Your task to perform on an android device: Go to ESPN.com Image 0: 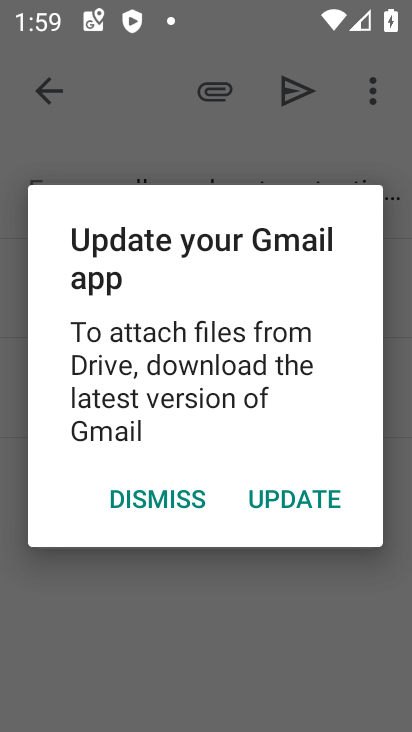
Step 0: press home button
Your task to perform on an android device: Go to ESPN.com Image 1: 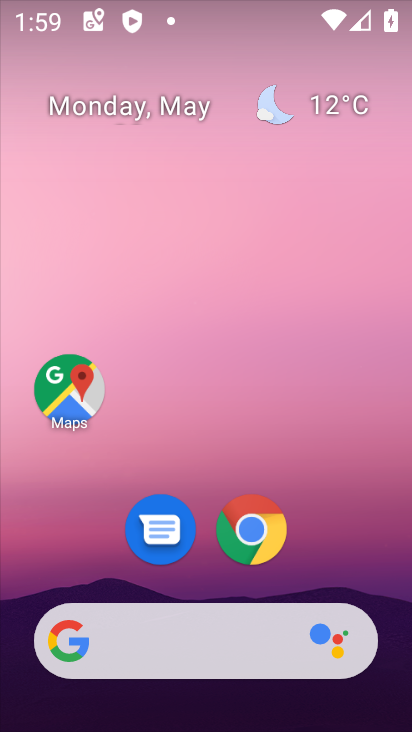
Step 1: click (244, 530)
Your task to perform on an android device: Go to ESPN.com Image 2: 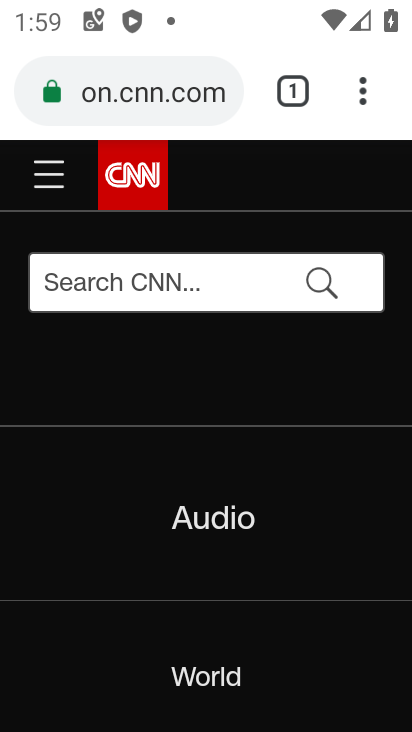
Step 2: click (224, 93)
Your task to perform on an android device: Go to ESPN.com Image 3: 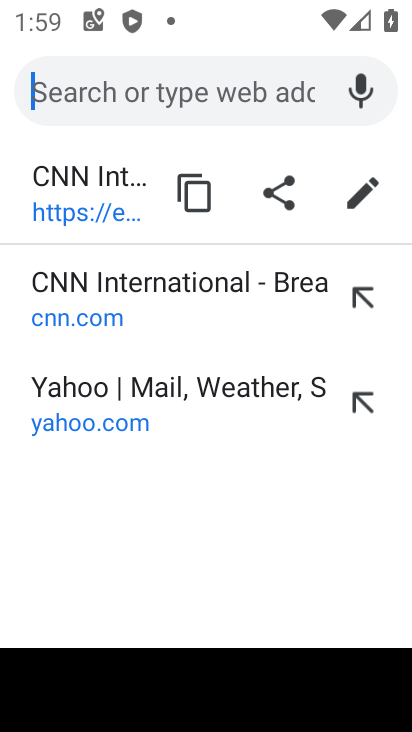
Step 3: type "espn.com"
Your task to perform on an android device: Go to ESPN.com Image 4: 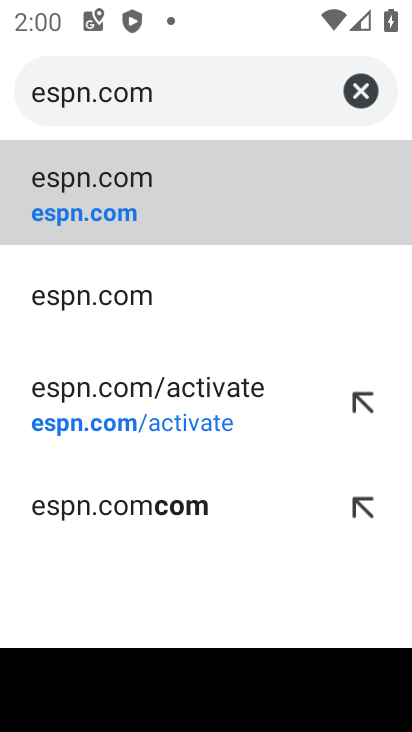
Step 4: click (148, 181)
Your task to perform on an android device: Go to ESPN.com Image 5: 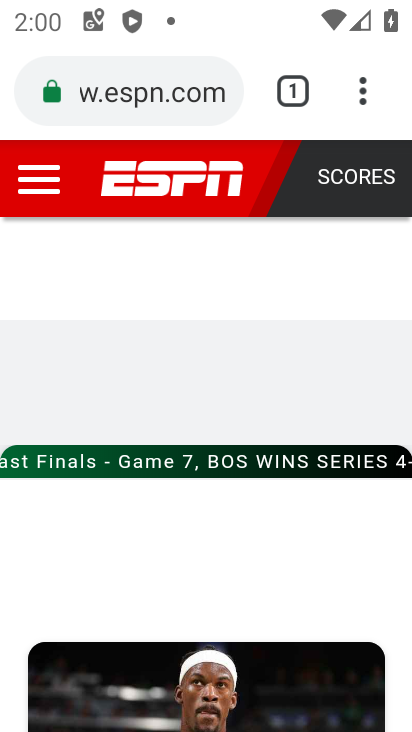
Step 5: task complete